Your task to perform on an android device: open device folders in google photos Image 0: 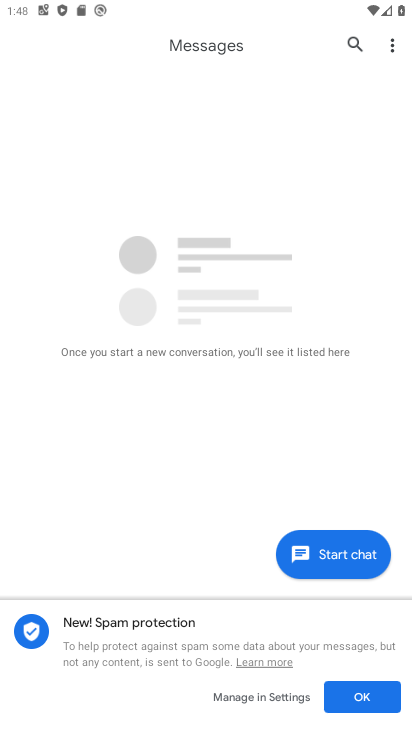
Step 0: press home button
Your task to perform on an android device: open device folders in google photos Image 1: 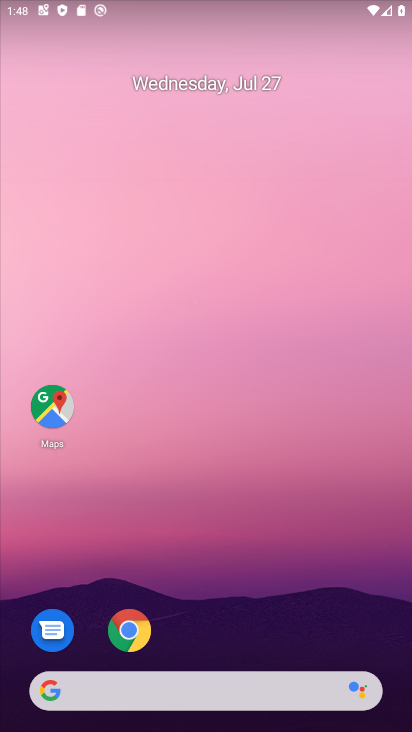
Step 1: drag from (367, 637) to (321, 119)
Your task to perform on an android device: open device folders in google photos Image 2: 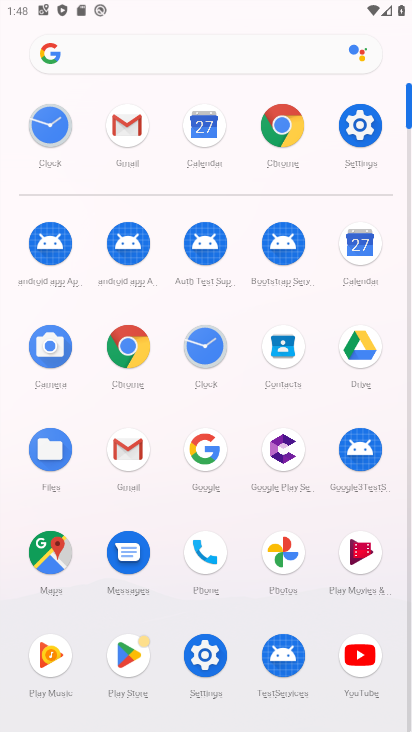
Step 2: click (284, 553)
Your task to perform on an android device: open device folders in google photos Image 3: 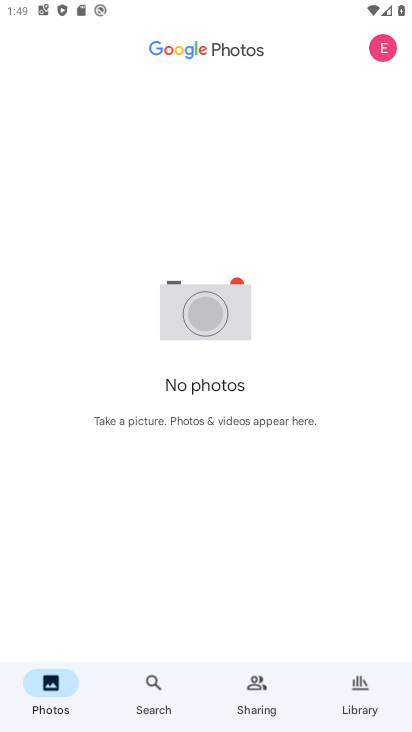
Step 3: task complete